Your task to perform on an android device: toggle pop-ups in chrome Image 0: 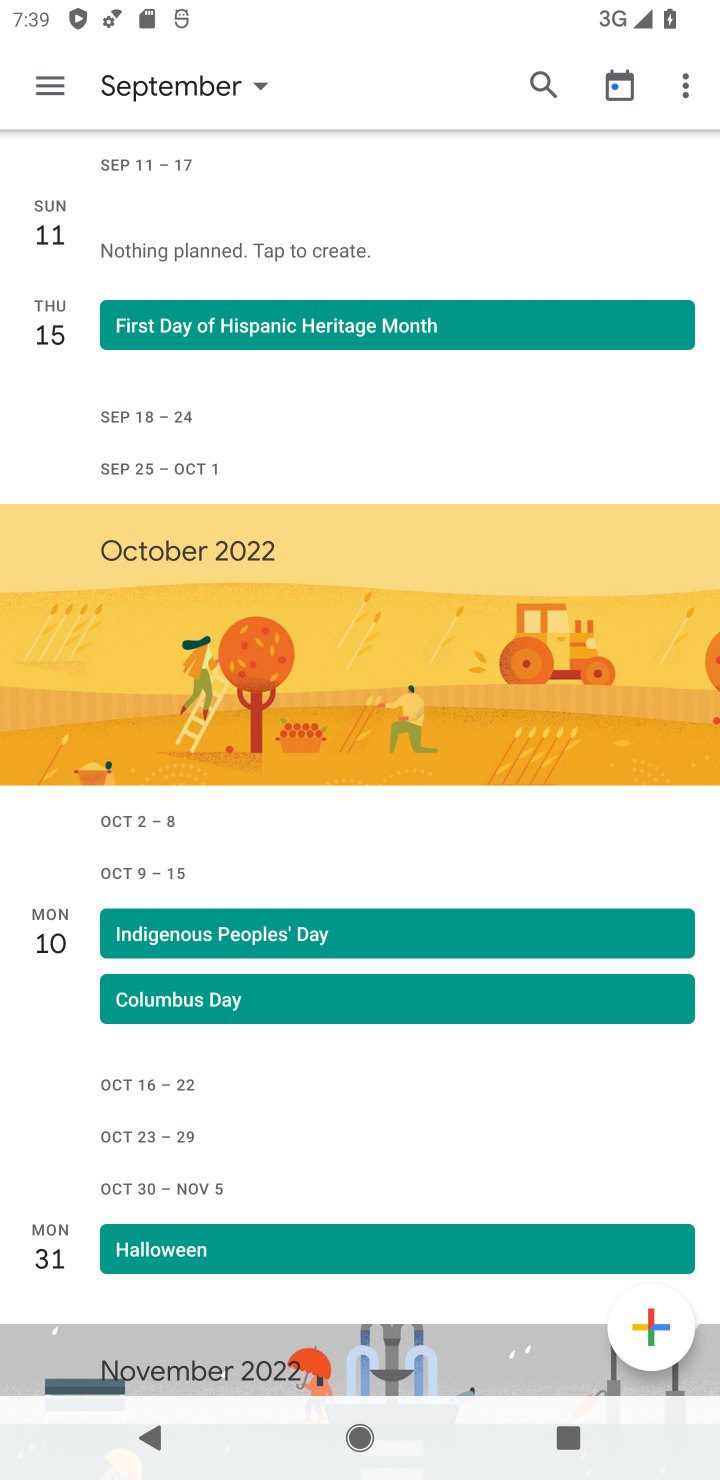
Step 0: press home button
Your task to perform on an android device: toggle pop-ups in chrome Image 1: 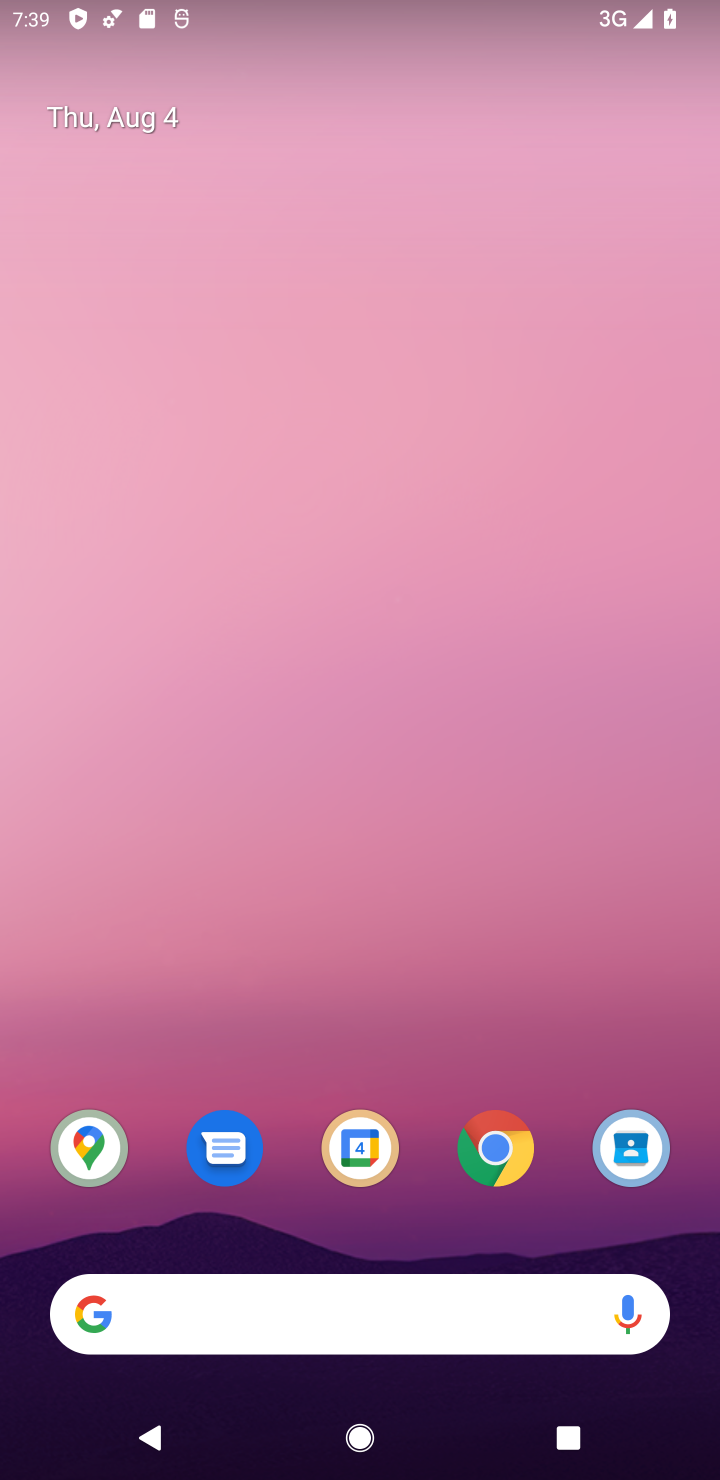
Step 1: click (512, 1160)
Your task to perform on an android device: toggle pop-ups in chrome Image 2: 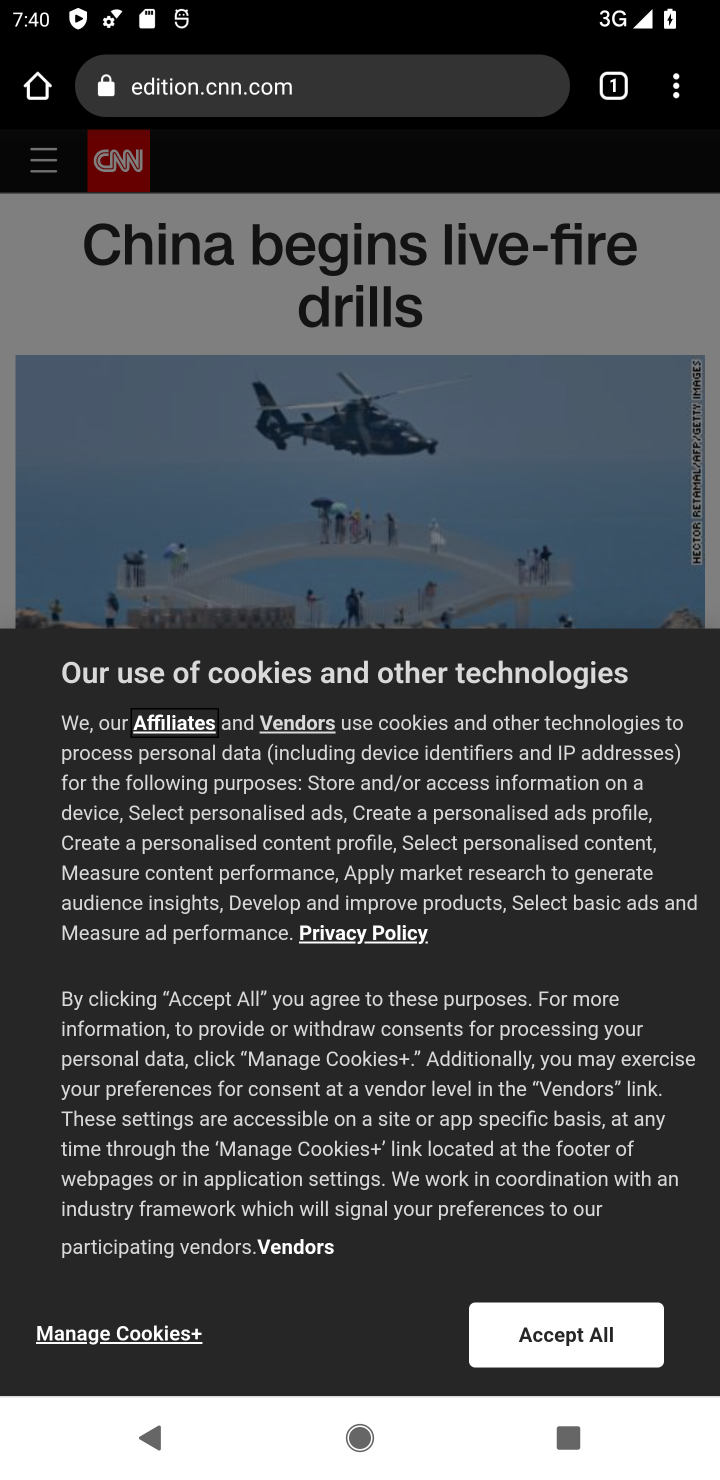
Step 2: click (687, 87)
Your task to perform on an android device: toggle pop-ups in chrome Image 3: 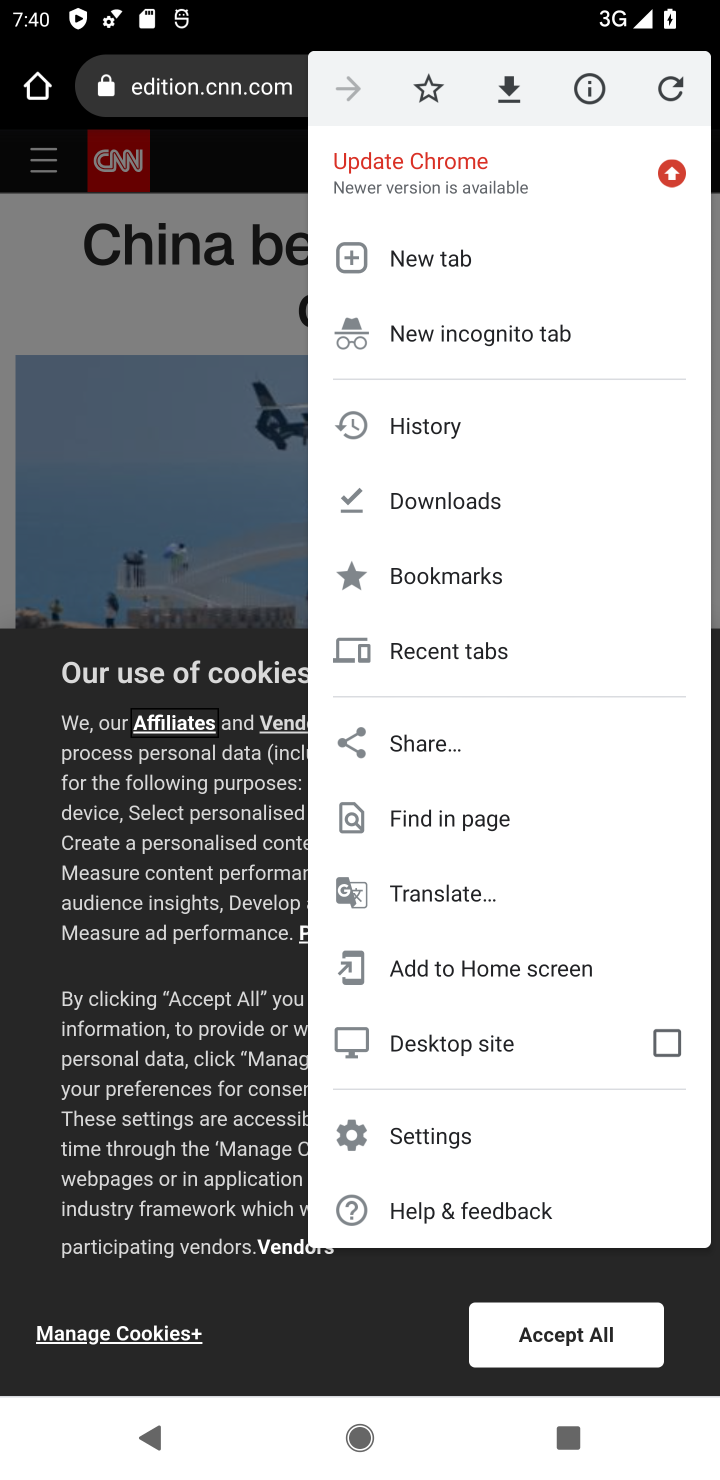
Step 3: click (517, 1126)
Your task to perform on an android device: toggle pop-ups in chrome Image 4: 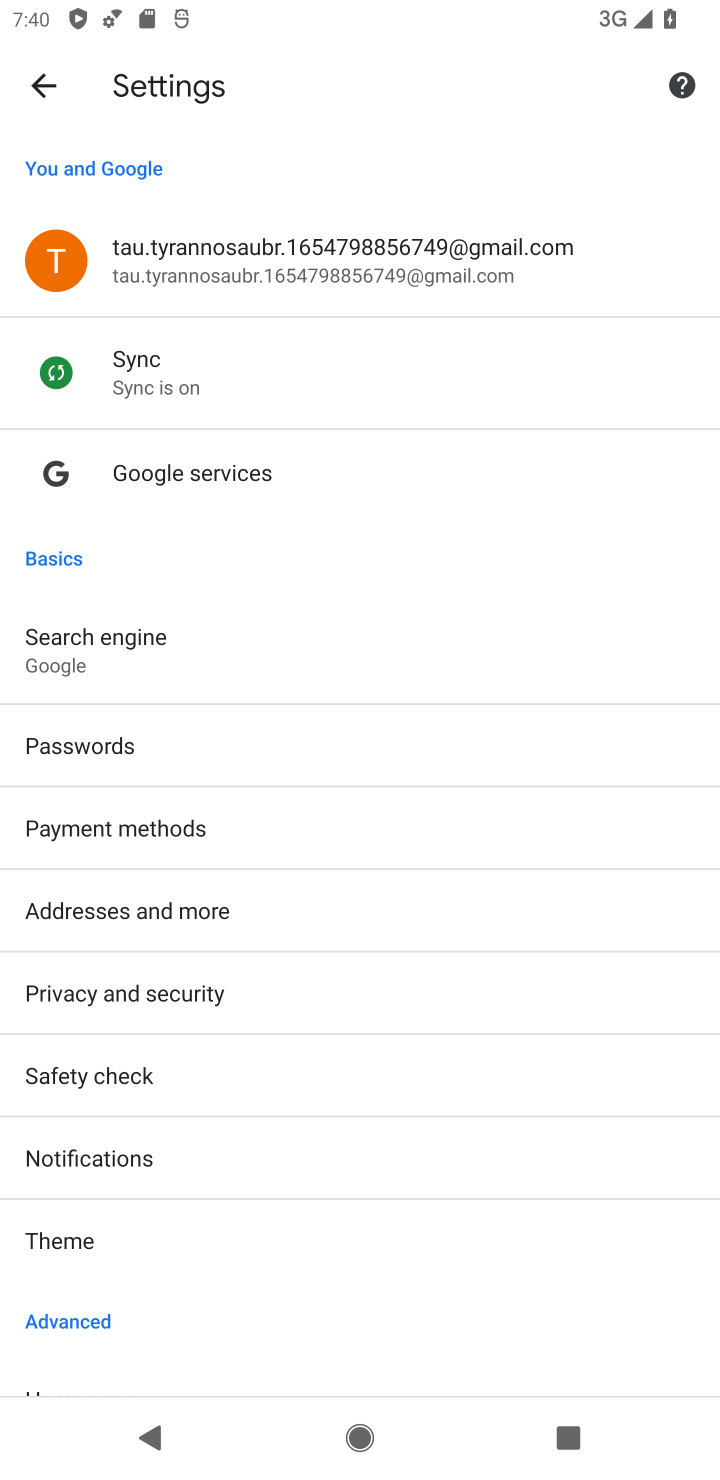
Step 4: drag from (305, 1310) to (317, 426)
Your task to perform on an android device: toggle pop-ups in chrome Image 5: 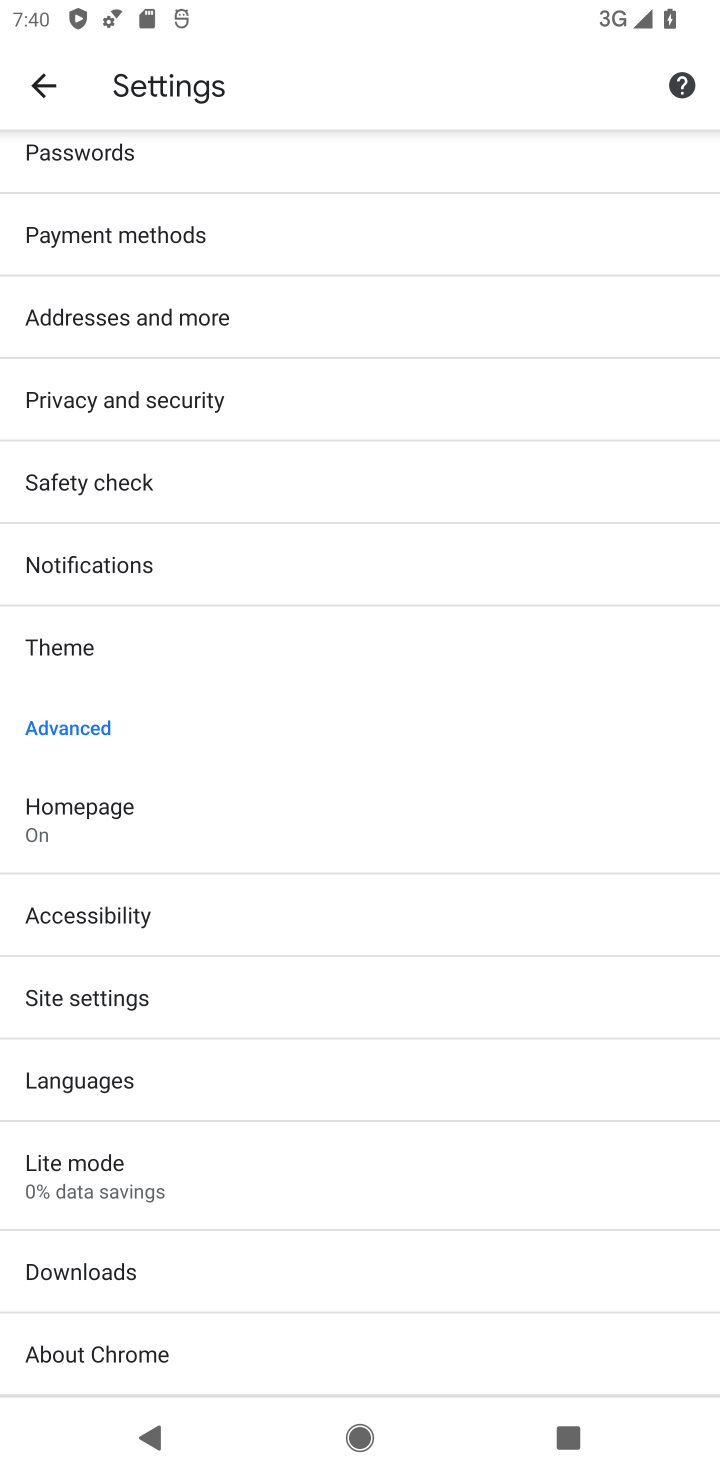
Step 5: click (243, 1000)
Your task to perform on an android device: toggle pop-ups in chrome Image 6: 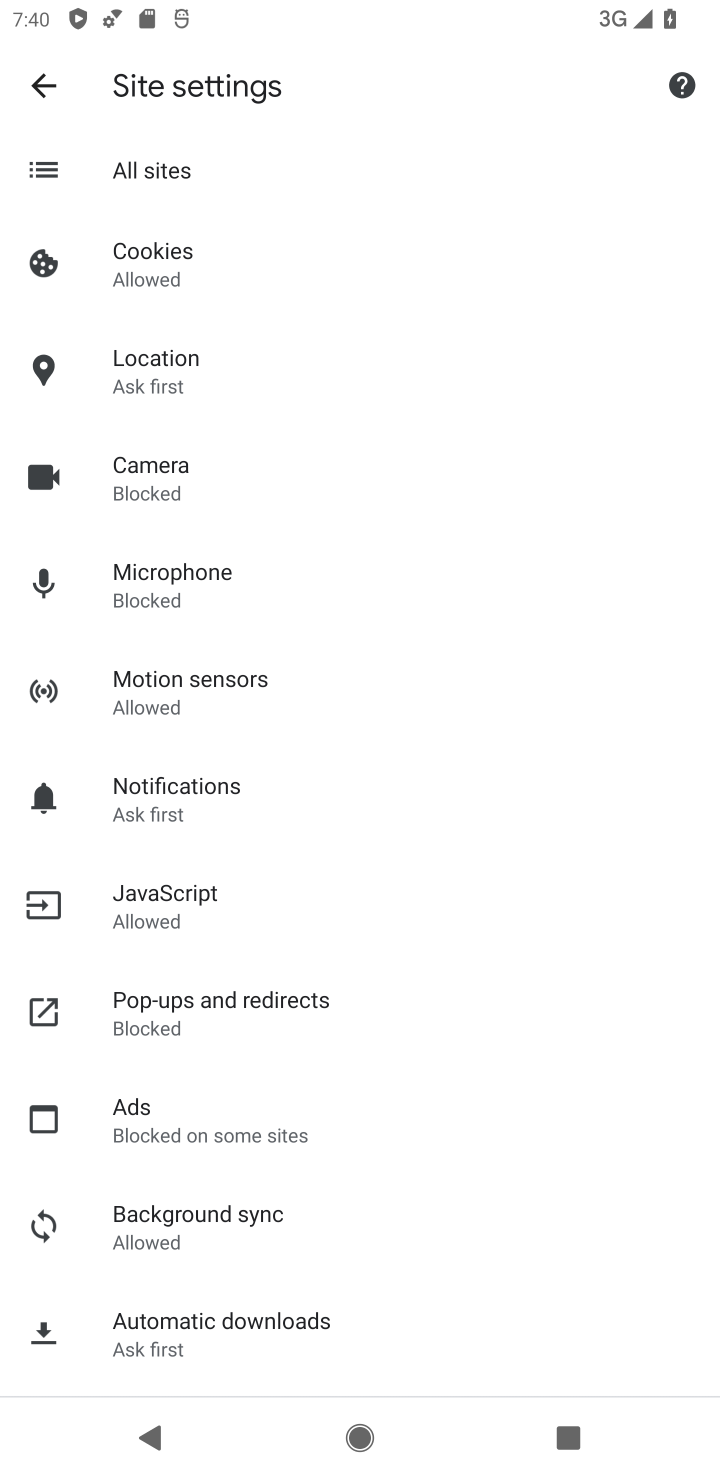
Step 6: click (497, 1016)
Your task to perform on an android device: toggle pop-ups in chrome Image 7: 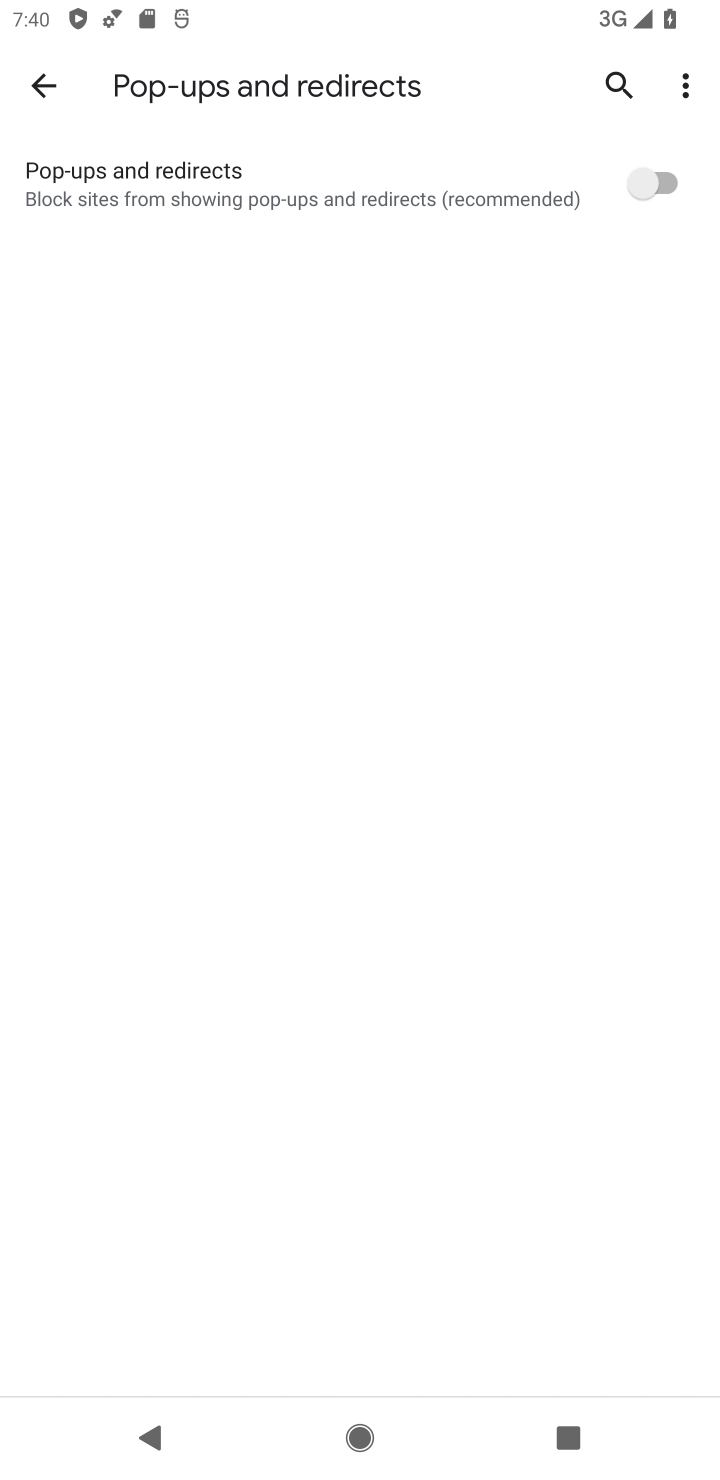
Step 7: click (663, 200)
Your task to perform on an android device: toggle pop-ups in chrome Image 8: 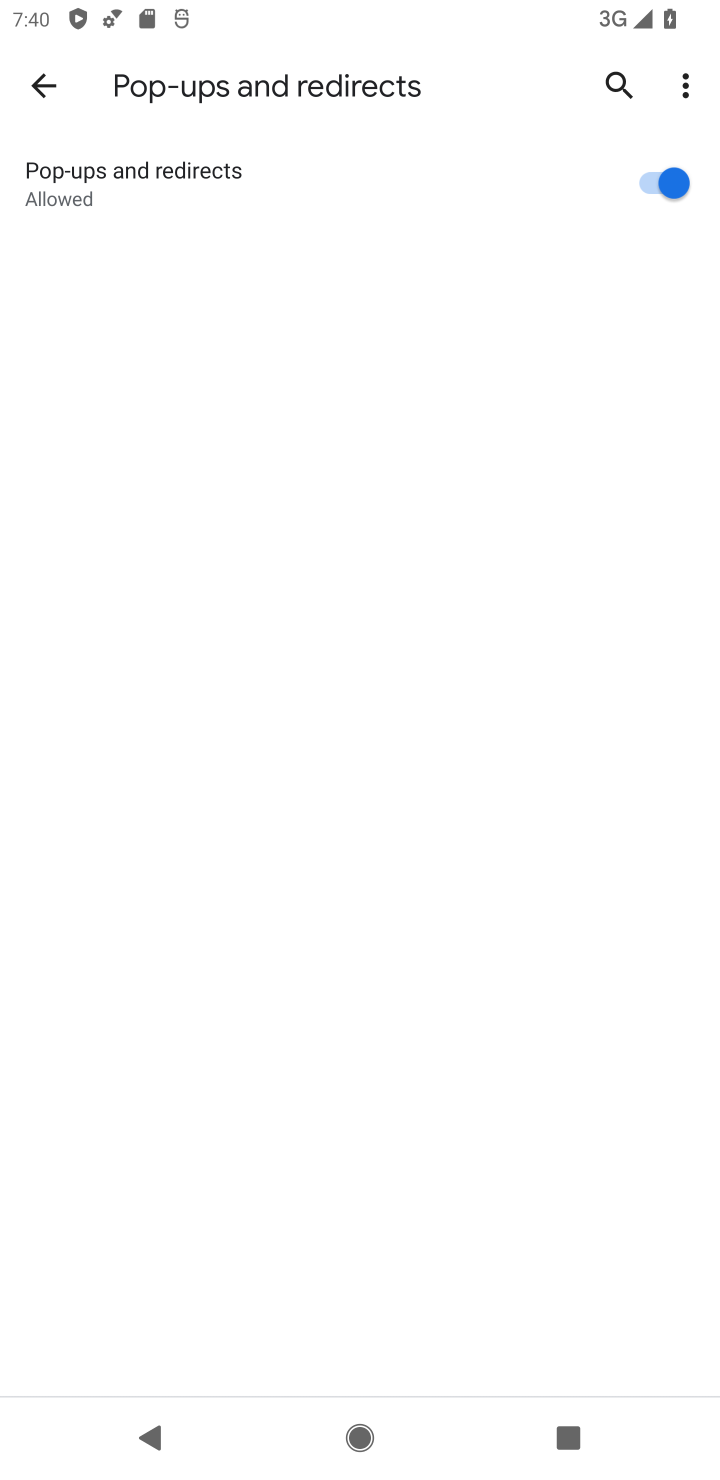
Step 8: task complete